Your task to perform on an android device: View the shopping cart on newegg. Search for "rayovac triple a" on newegg, select the first entry, add it to the cart, then select checkout. Image 0: 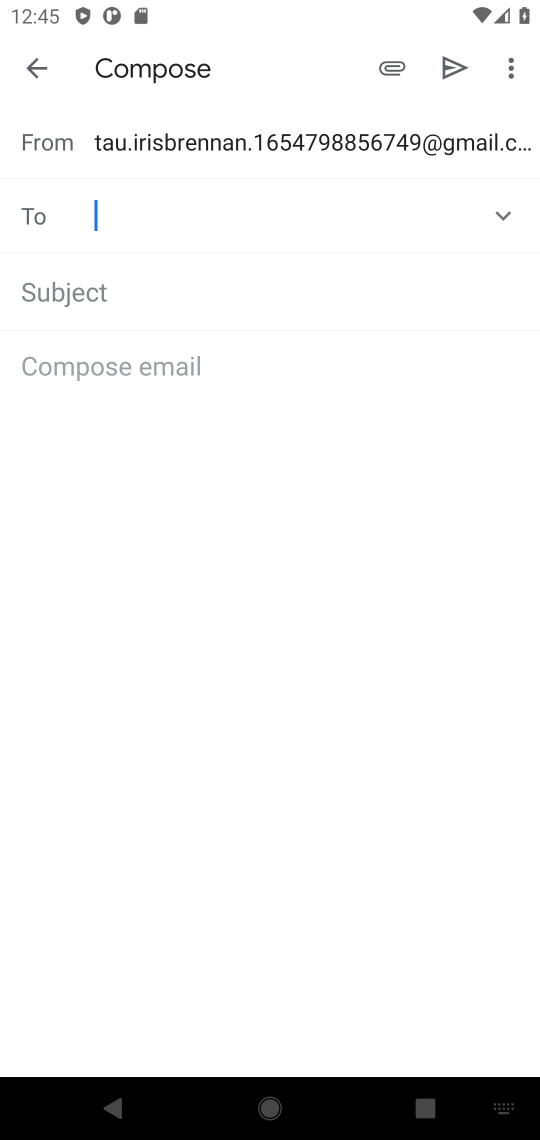
Step 0: press home button
Your task to perform on an android device: View the shopping cart on newegg. Search for "rayovac triple a" on newegg, select the first entry, add it to the cart, then select checkout. Image 1: 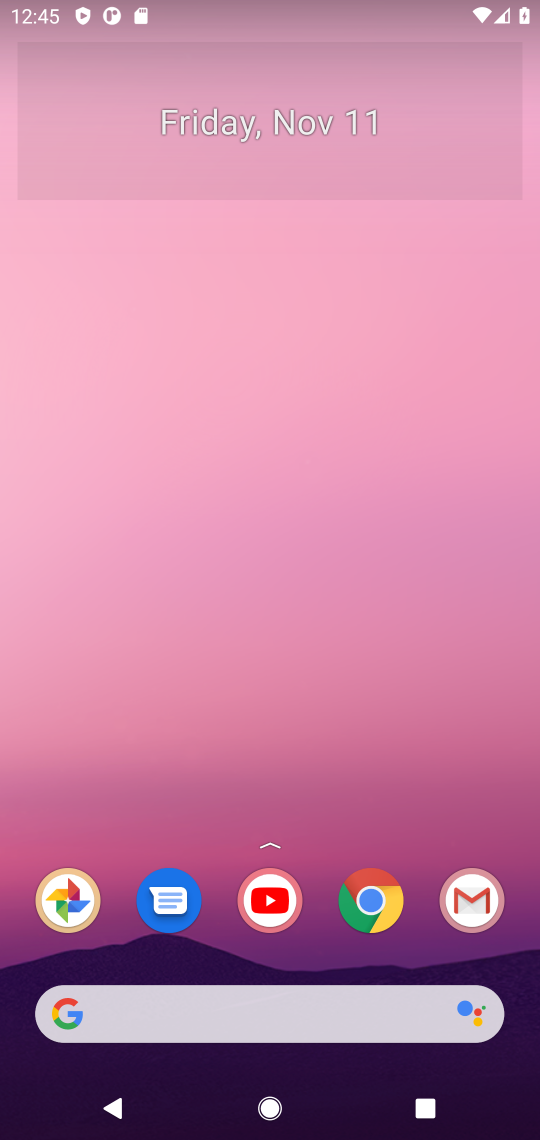
Step 1: click (365, 899)
Your task to perform on an android device: View the shopping cart on newegg. Search for "rayovac triple a" on newegg, select the first entry, add it to the cart, then select checkout. Image 2: 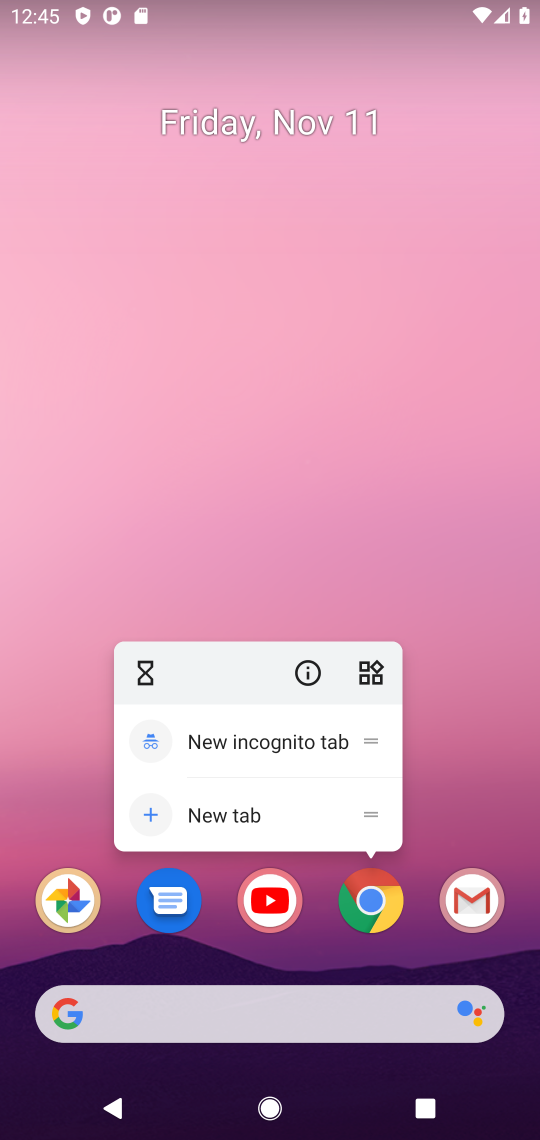
Step 2: click (365, 901)
Your task to perform on an android device: View the shopping cart on newegg. Search for "rayovac triple a" on newegg, select the first entry, add it to the cart, then select checkout. Image 3: 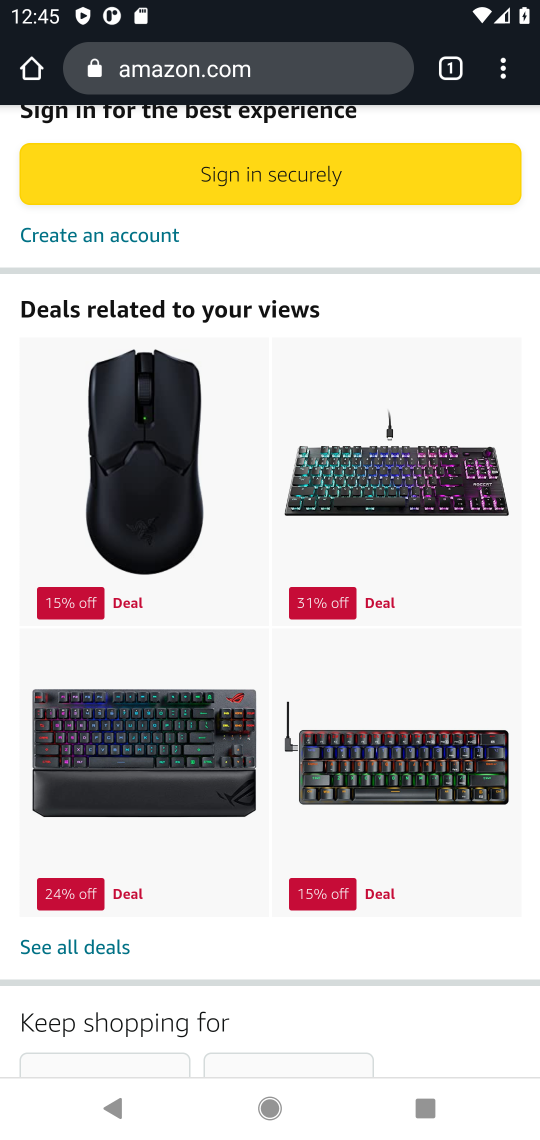
Step 3: click (281, 54)
Your task to perform on an android device: View the shopping cart on newegg. Search for "rayovac triple a" on newegg, select the first entry, add it to the cart, then select checkout. Image 4: 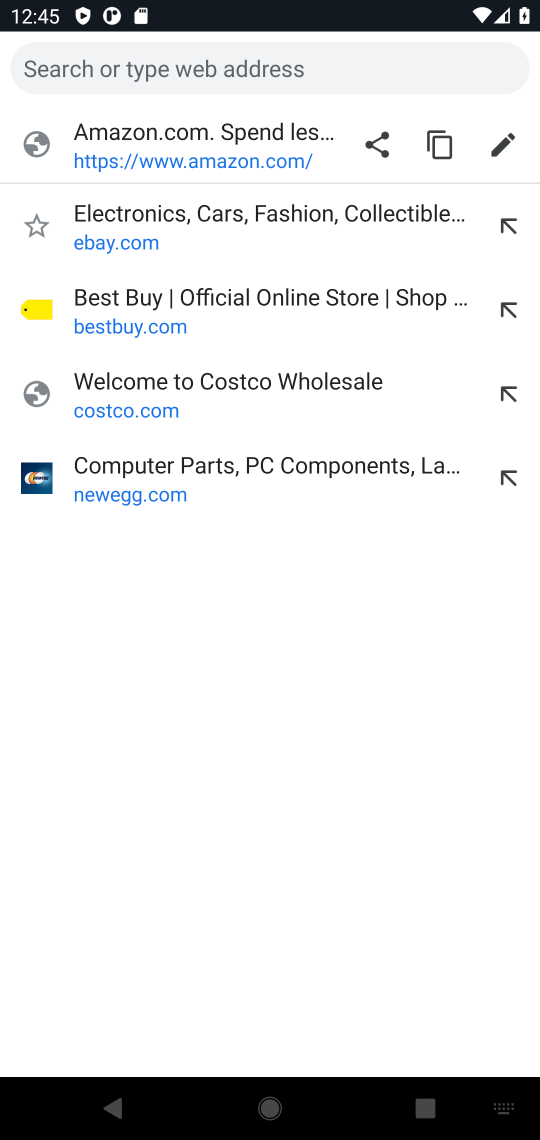
Step 4: click (118, 497)
Your task to perform on an android device: View the shopping cart on newegg. Search for "rayovac triple a" on newegg, select the first entry, add it to the cart, then select checkout. Image 5: 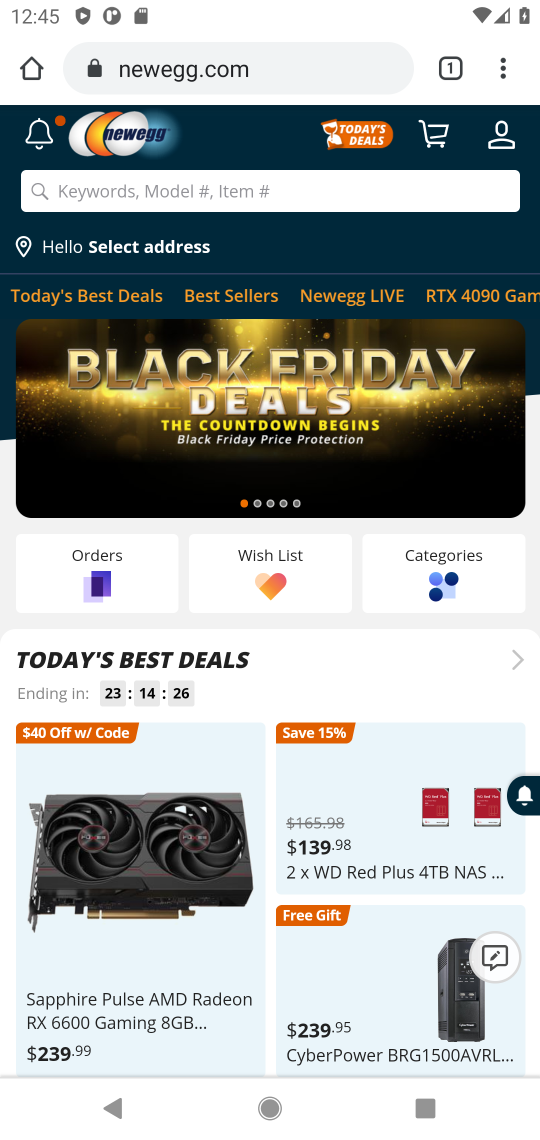
Step 5: click (177, 189)
Your task to perform on an android device: View the shopping cart on newegg. Search for "rayovac triple a" on newegg, select the first entry, add it to the cart, then select checkout. Image 6: 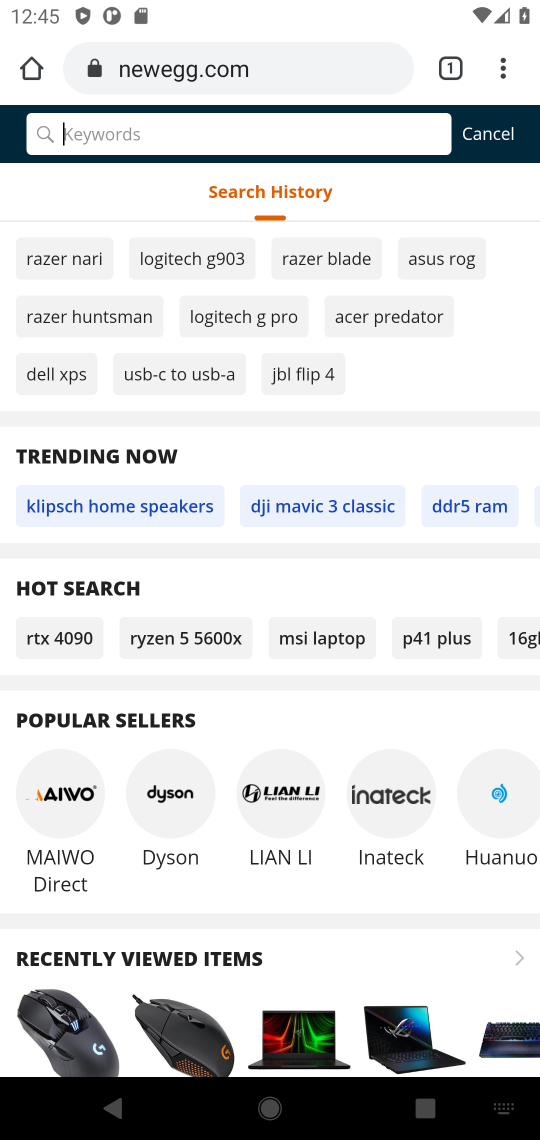
Step 6: type "rayovac triple a"
Your task to perform on an android device: View the shopping cart on newegg. Search for "rayovac triple a" on newegg, select the first entry, add it to the cart, then select checkout. Image 7: 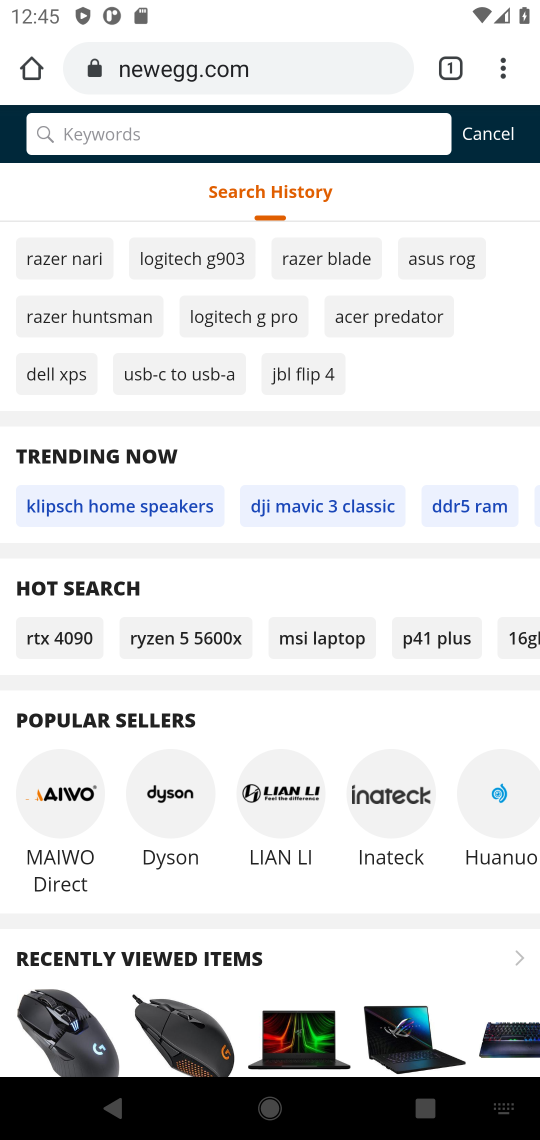
Step 7: press enter
Your task to perform on an android device: View the shopping cart on newegg. Search for "rayovac triple a" on newegg, select the first entry, add it to the cart, then select checkout. Image 8: 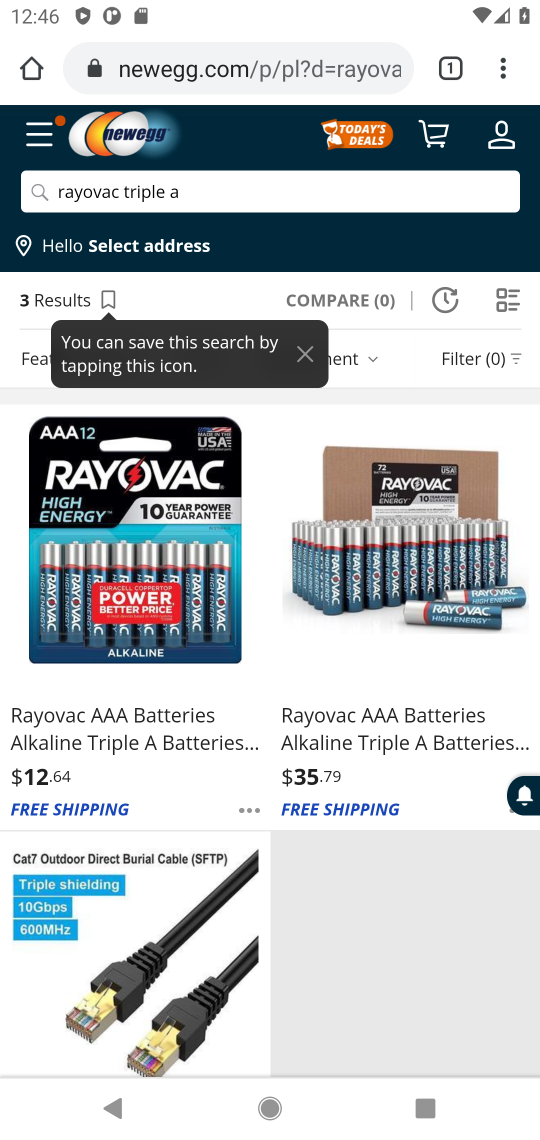
Step 8: click (164, 715)
Your task to perform on an android device: View the shopping cart on newegg. Search for "rayovac triple a" on newegg, select the first entry, add it to the cart, then select checkout. Image 9: 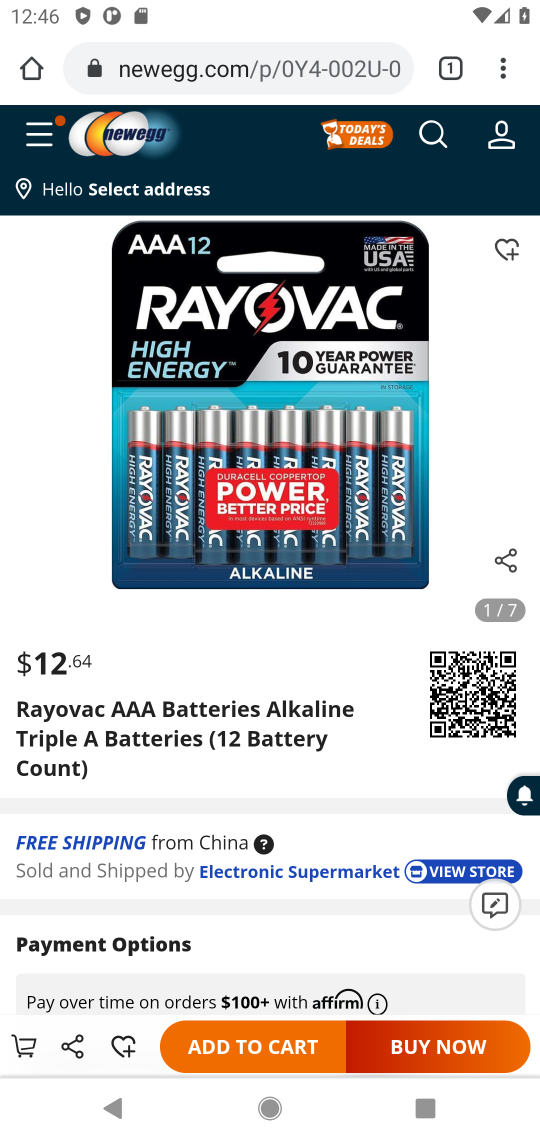
Step 9: click (245, 1050)
Your task to perform on an android device: View the shopping cart on newegg. Search for "rayovac triple a" on newegg, select the first entry, add it to the cart, then select checkout. Image 10: 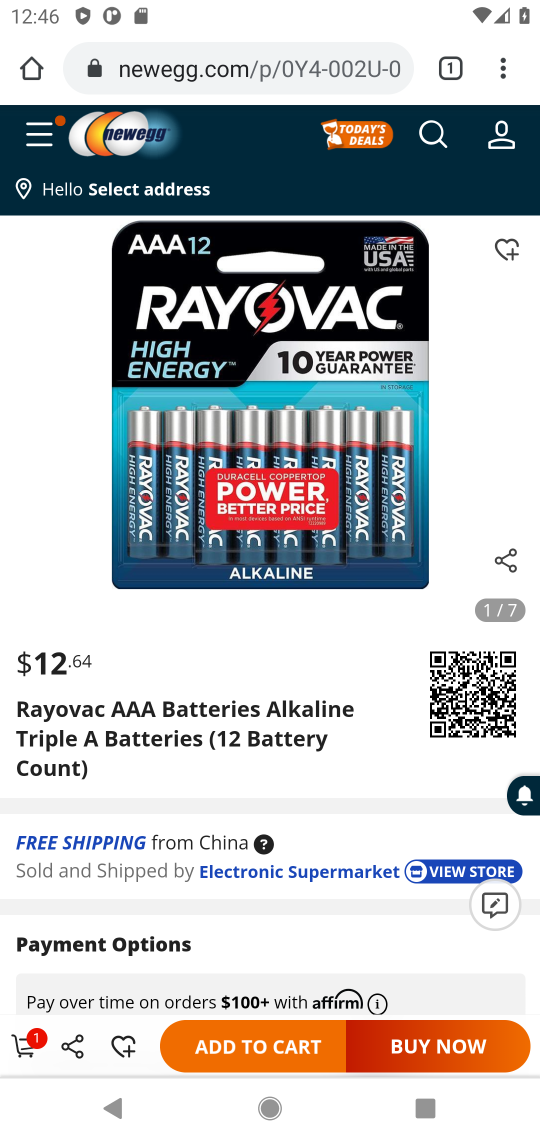
Step 10: click (35, 1043)
Your task to perform on an android device: View the shopping cart on newegg. Search for "rayovac triple a" on newegg, select the first entry, add it to the cart, then select checkout. Image 11: 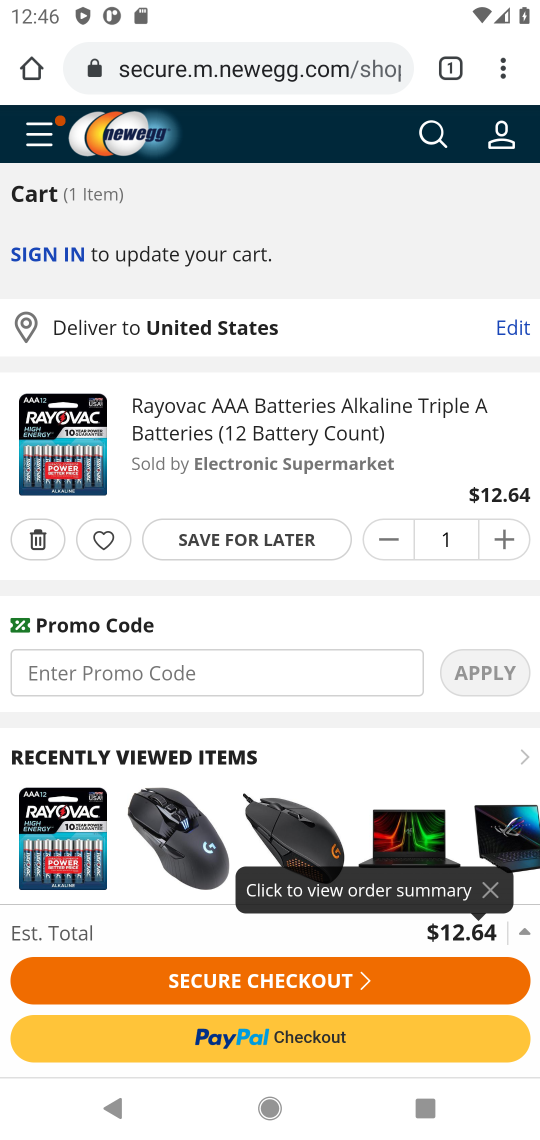
Step 11: click (280, 977)
Your task to perform on an android device: View the shopping cart on newegg. Search for "rayovac triple a" on newegg, select the first entry, add it to the cart, then select checkout. Image 12: 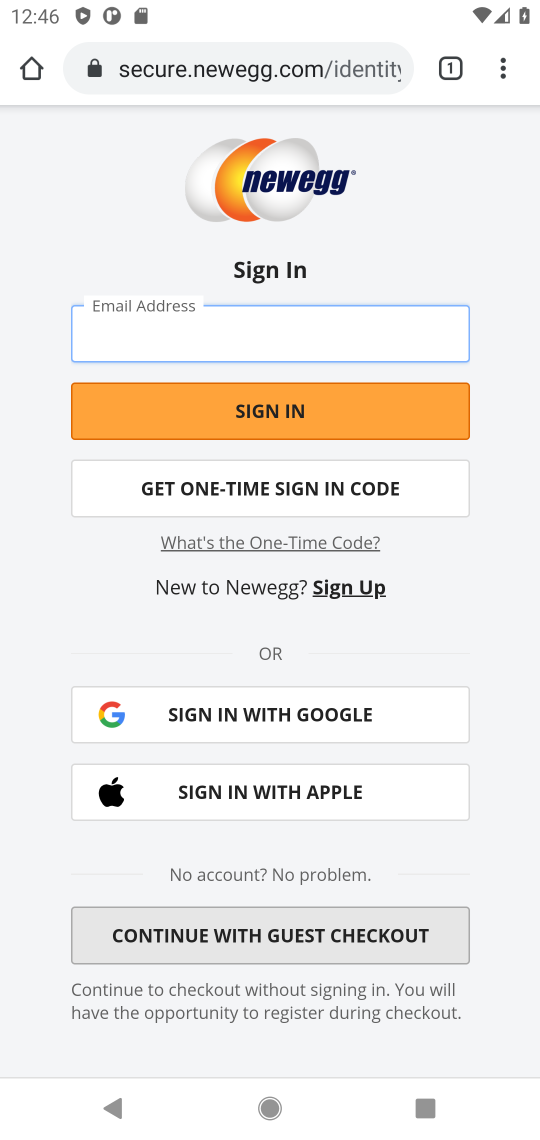
Step 12: task complete